Your task to perform on an android device: snooze an email in the gmail app Image 0: 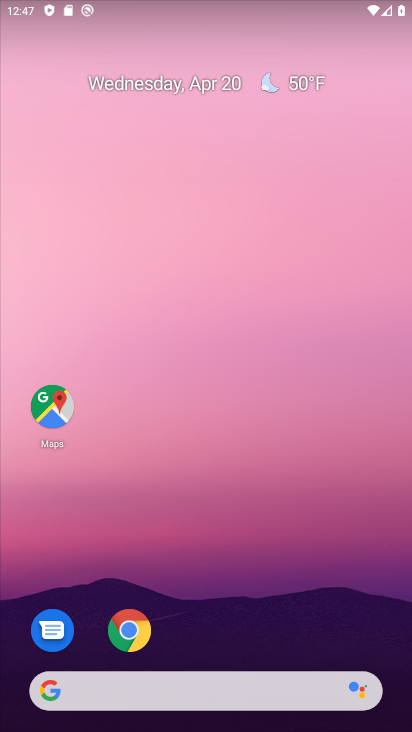
Step 0: drag from (239, 615) to (226, 153)
Your task to perform on an android device: snooze an email in the gmail app Image 1: 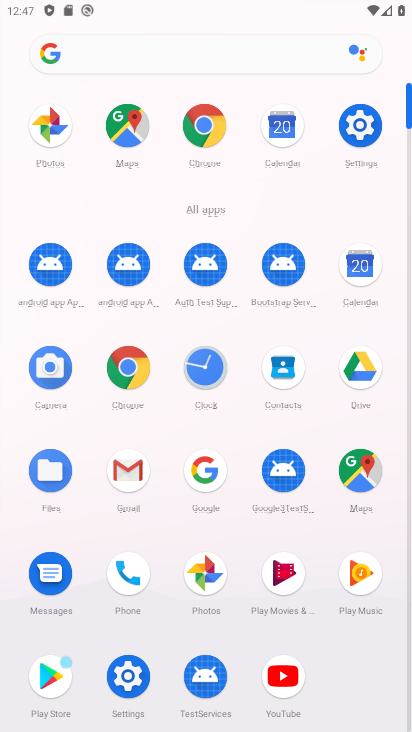
Step 1: click (128, 467)
Your task to perform on an android device: snooze an email in the gmail app Image 2: 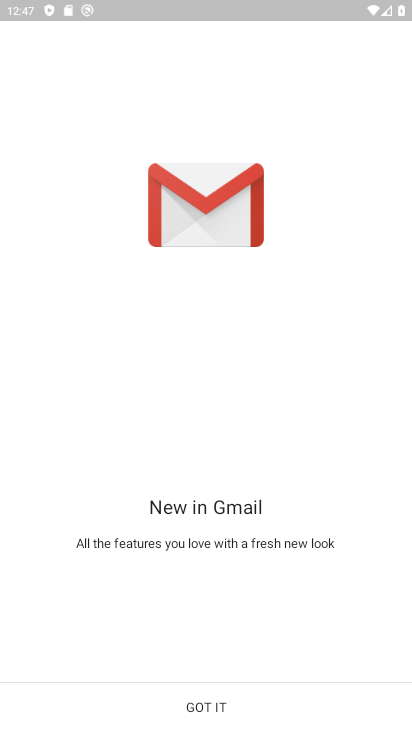
Step 2: click (197, 707)
Your task to perform on an android device: snooze an email in the gmail app Image 3: 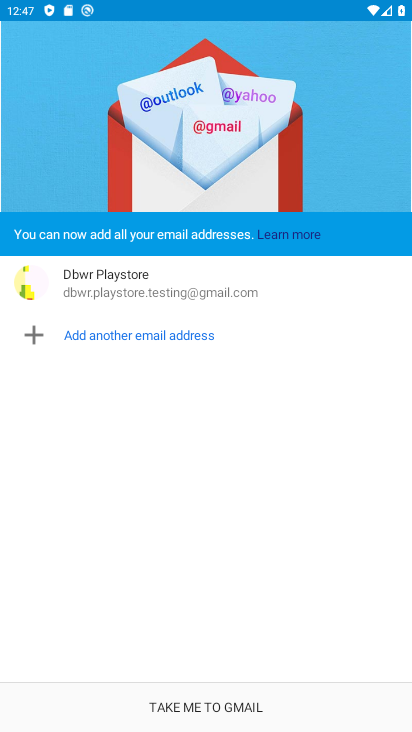
Step 3: click (197, 707)
Your task to perform on an android device: snooze an email in the gmail app Image 4: 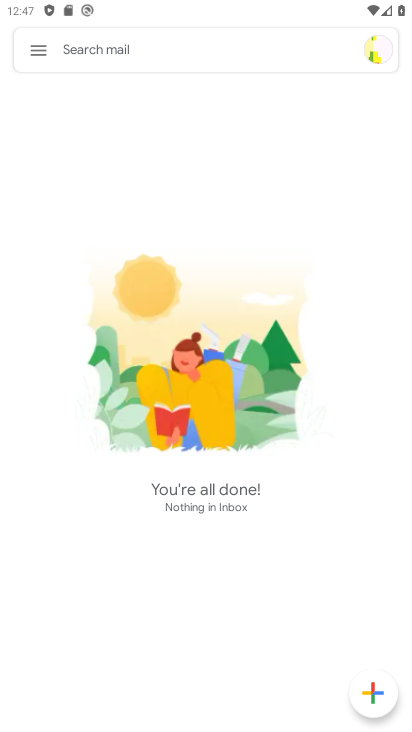
Step 4: click (41, 45)
Your task to perform on an android device: snooze an email in the gmail app Image 5: 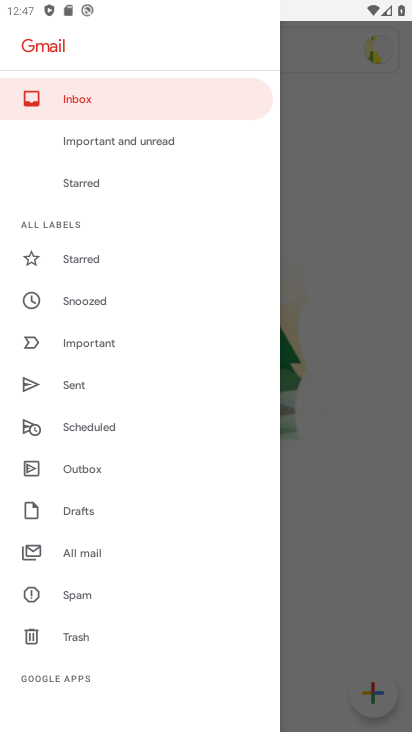
Step 5: click (108, 545)
Your task to perform on an android device: snooze an email in the gmail app Image 6: 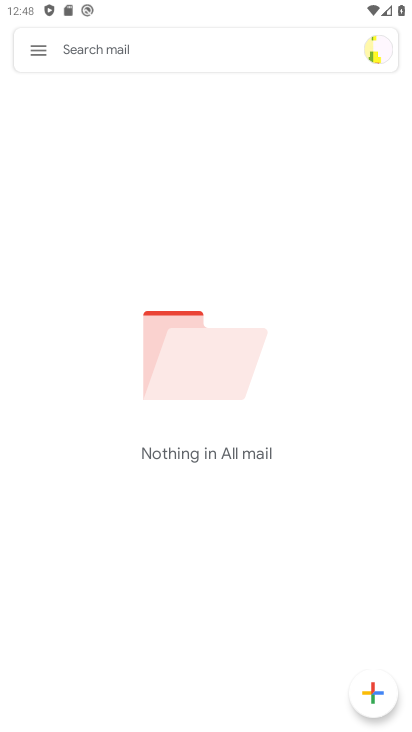
Step 6: task complete